Your task to perform on an android device: change alarm snooze length Image 0: 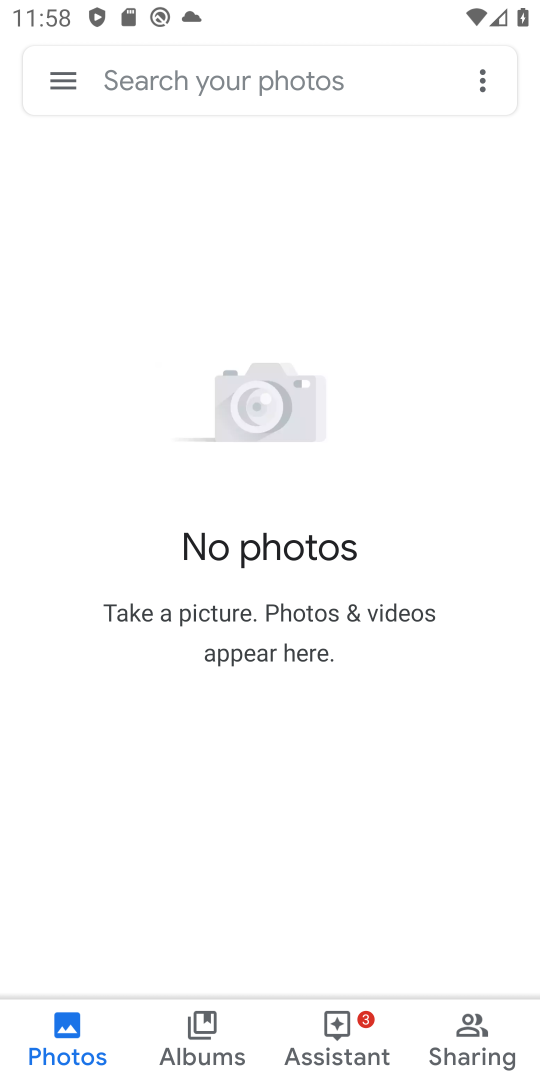
Step 0: press home button
Your task to perform on an android device: change alarm snooze length Image 1: 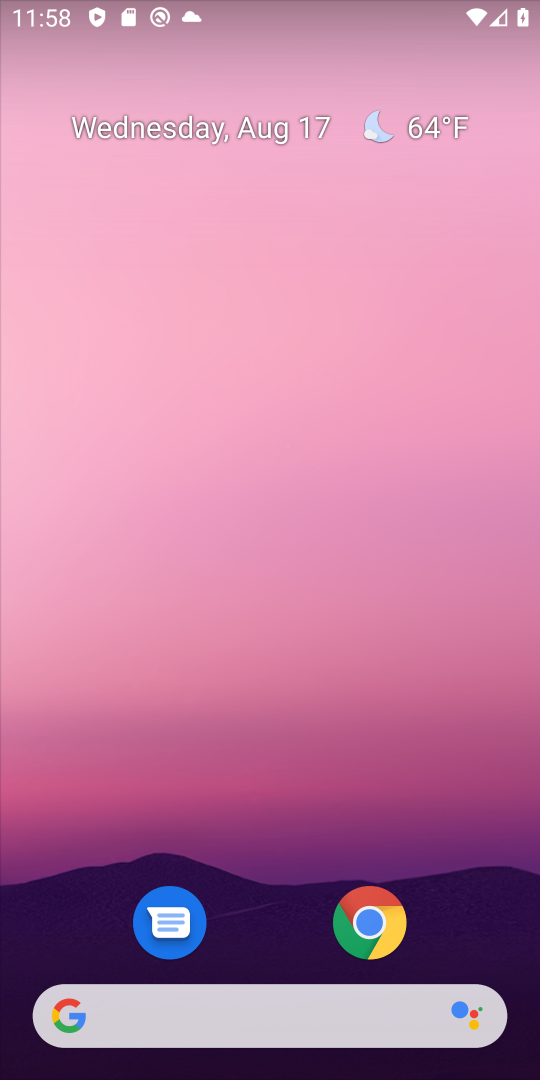
Step 1: drag from (272, 950) to (236, 428)
Your task to perform on an android device: change alarm snooze length Image 2: 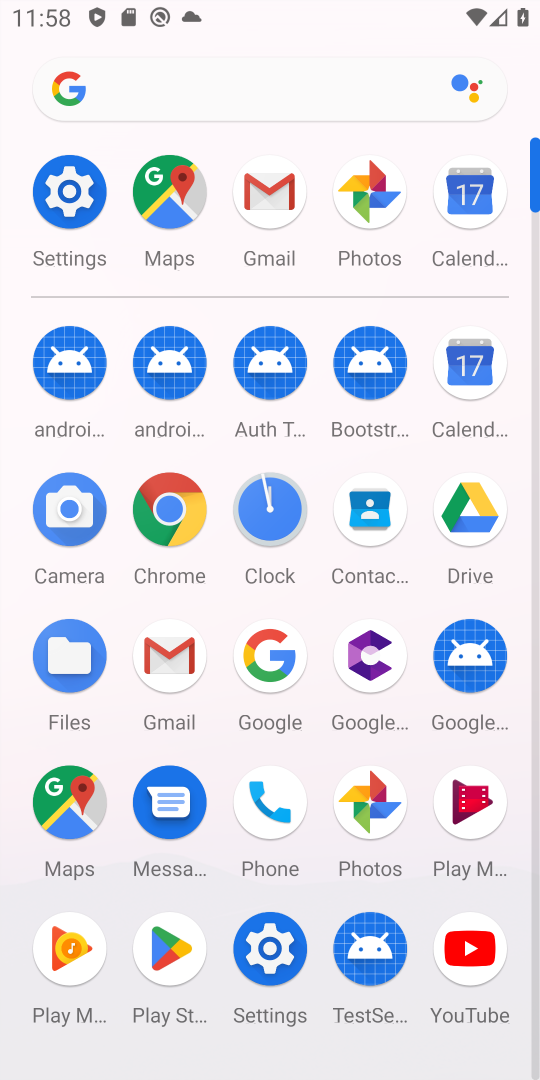
Step 2: click (276, 508)
Your task to perform on an android device: change alarm snooze length Image 3: 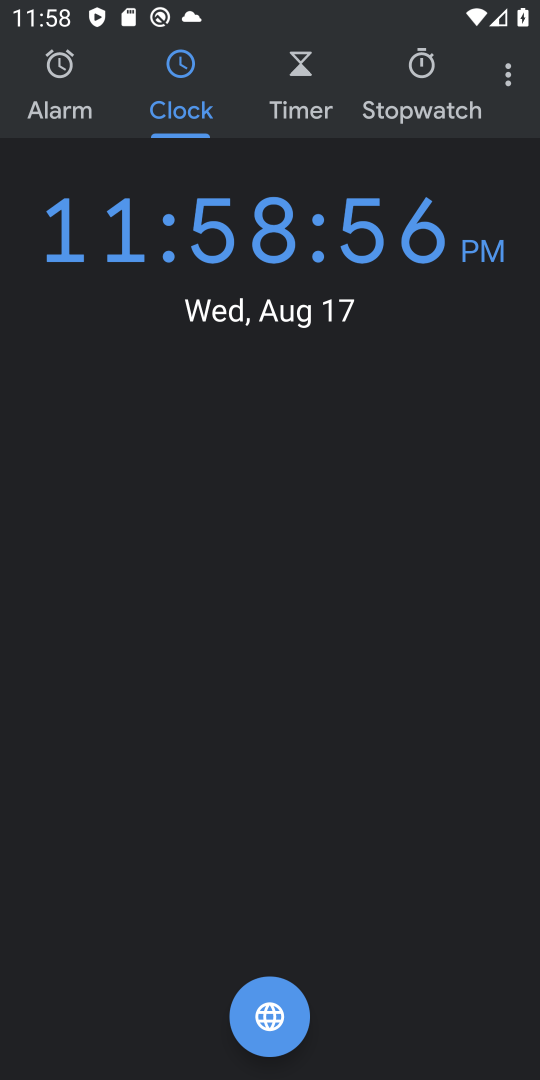
Step 3: click (512, 75)
Your task to perform on an android device: change alarm snooze length Image 4: 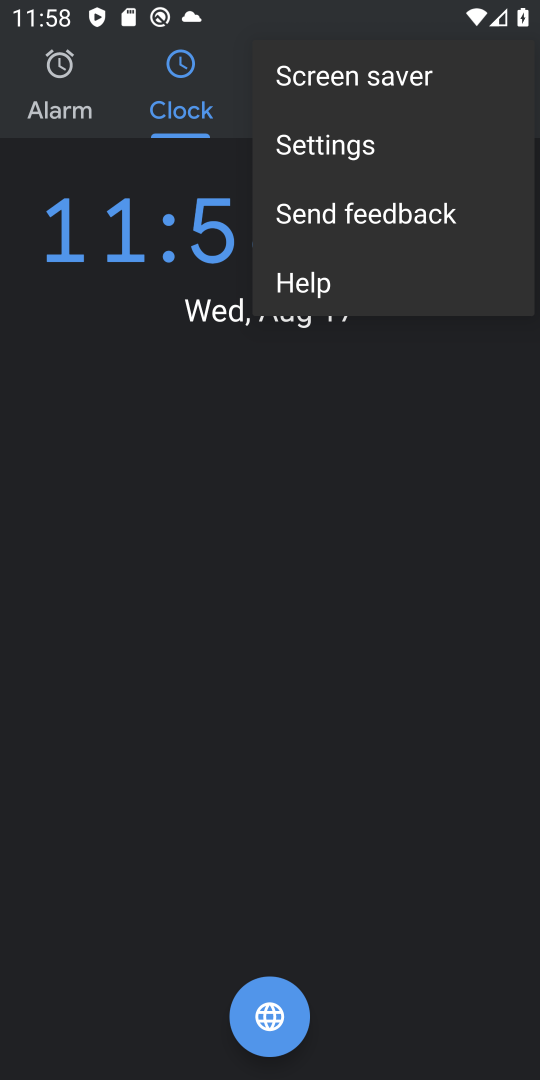
Step 4: click (366, 154)
Your task to perform on an android device: change alarm snooze length Image 5: 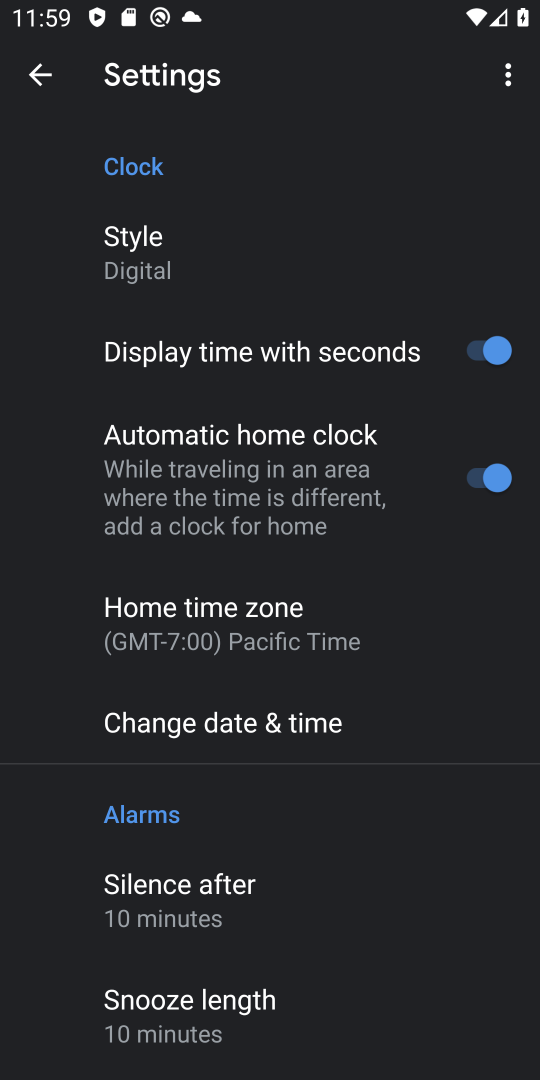
Step 5: click (218, 1003)
Your task to perform on an android device: change alarm snooze length Image 6: 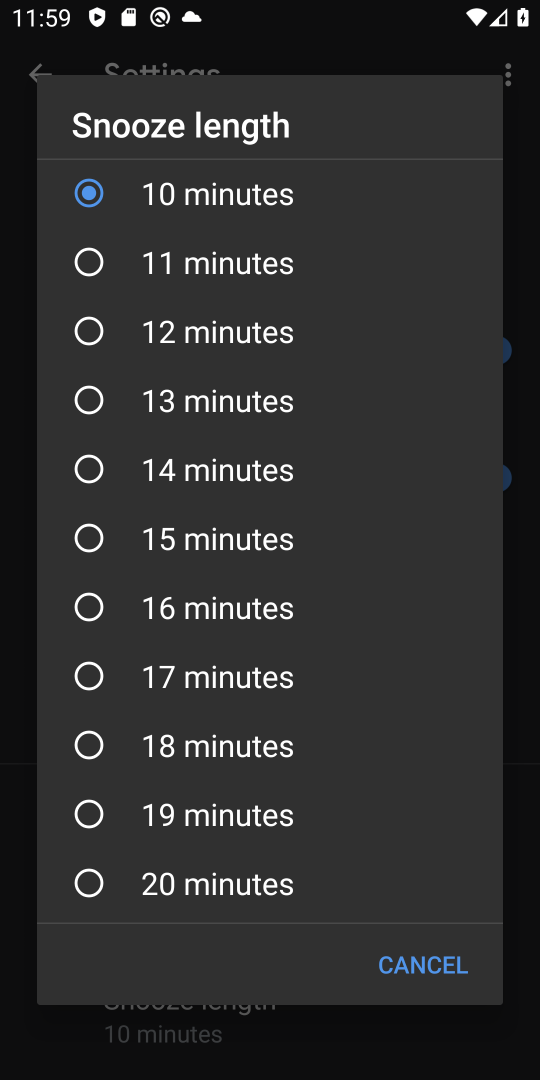
Step 6: click (88, 679)
Your task to perform on an android device: change alarm snooze length Image 7: 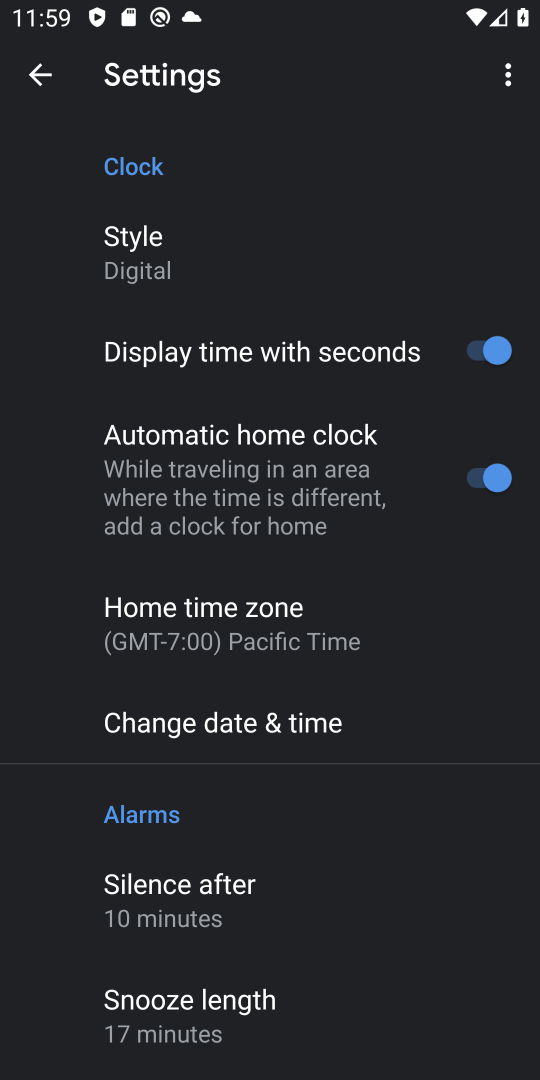
Step 7: task complete